Your task to perform on an android device: Open privacy settings Image 0: 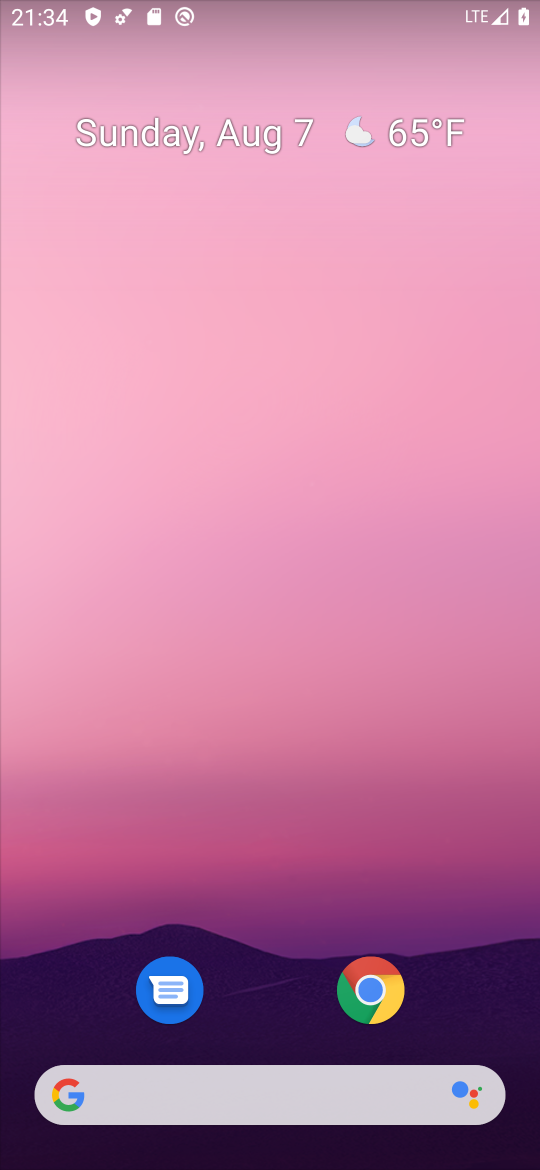
Step 0: drag from (269, 861) to (241, 33)
Your task to perform on an android device: Open privacy settings Image 1: 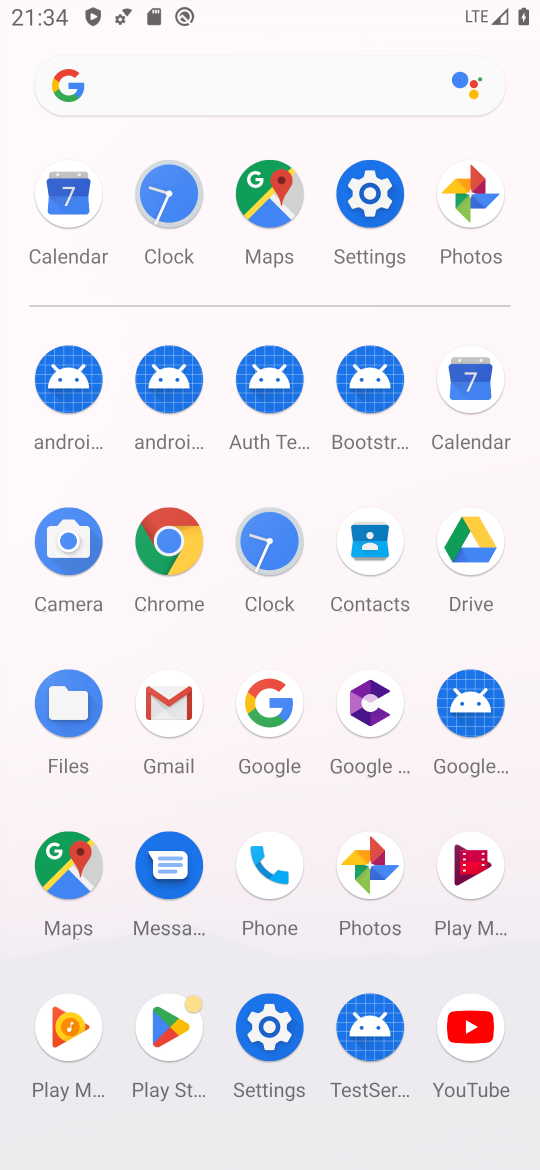
Step 1: click (374, 193)
Your task to perform on an android device: Open privacy settings Image 2: 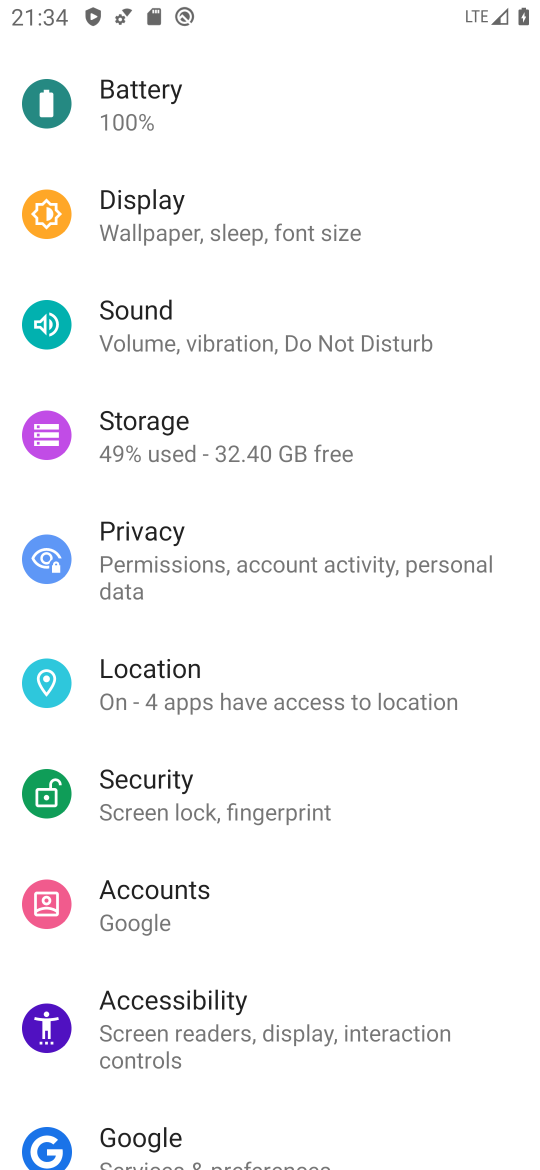
Step 2: click (278, 549)
Your task to perform on an android device: Open privacy settings Image 3: 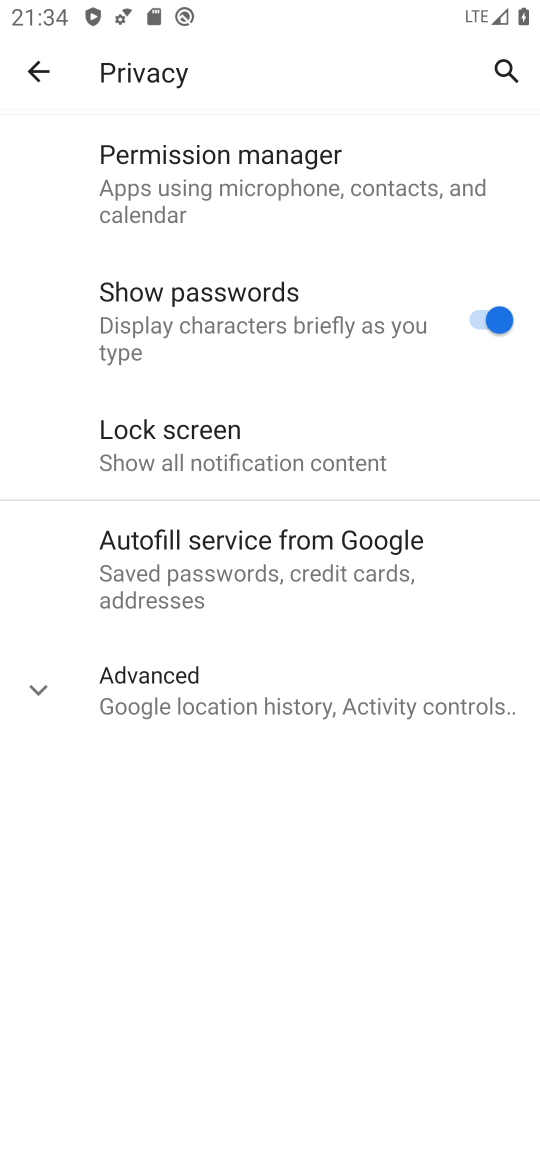
Step 3: click (36, 678)
Your task to perform on an android device: Open privacy settings Image 4: 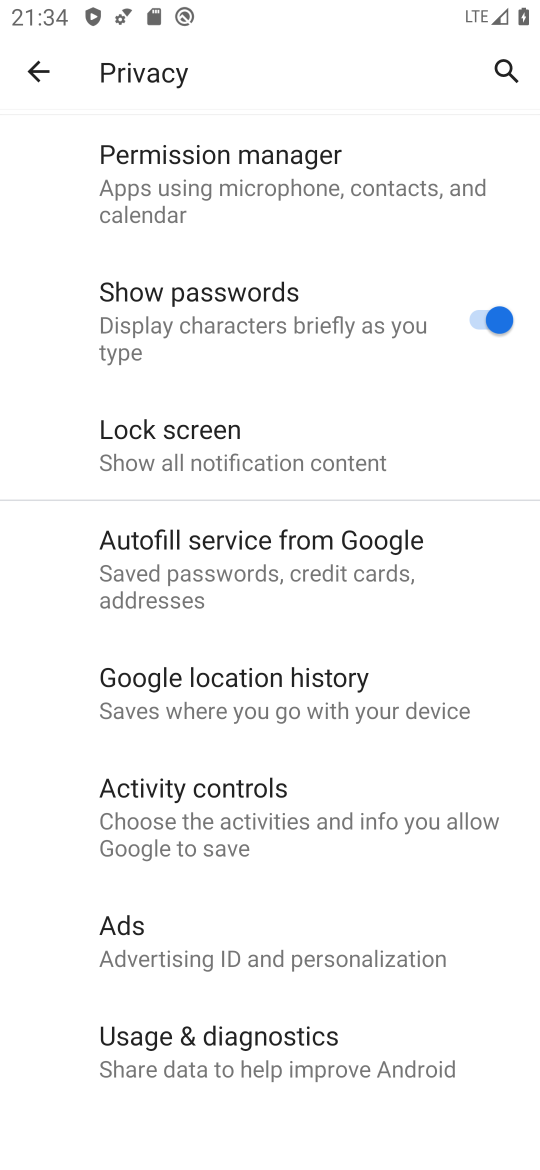
Step 4: task complete